Your task to perform on an android device: Search for sushi restaurants on Maps Image 0: 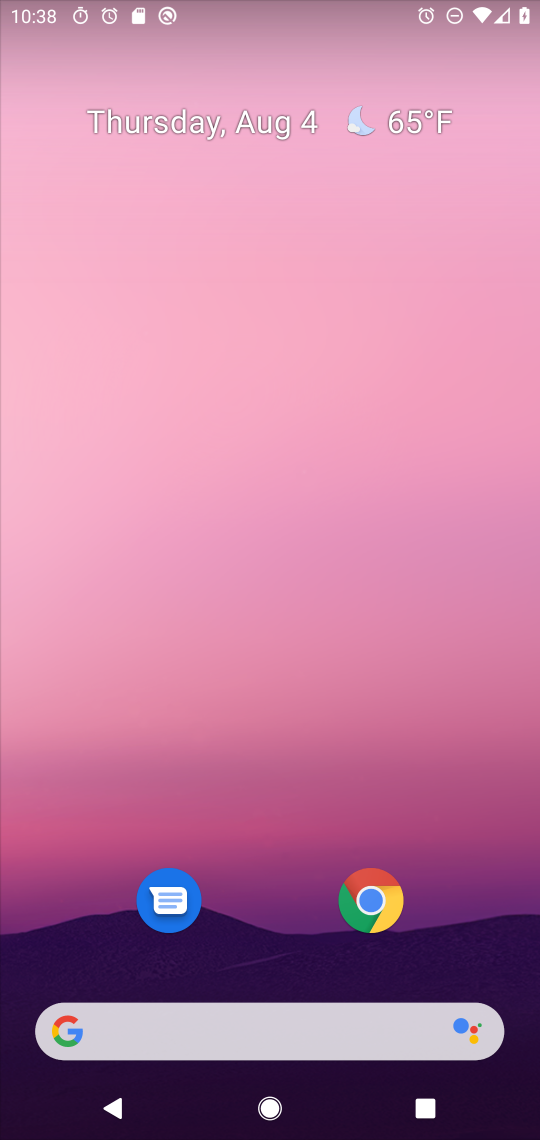
Step 0: drag from (207, 1032) to (209, 184)
Your task to perform on an android device: Search for sushi restaurants on Maps Image 1: 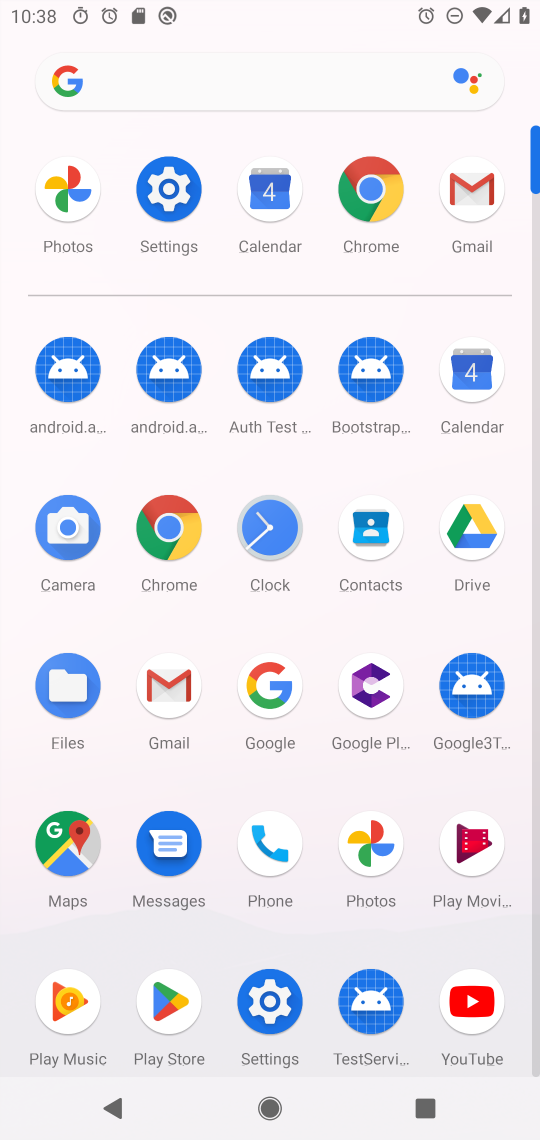
Step 1: click (63, 848)
Your task to perform on an android device: Search for sushi restaurants on Maps Image 2: 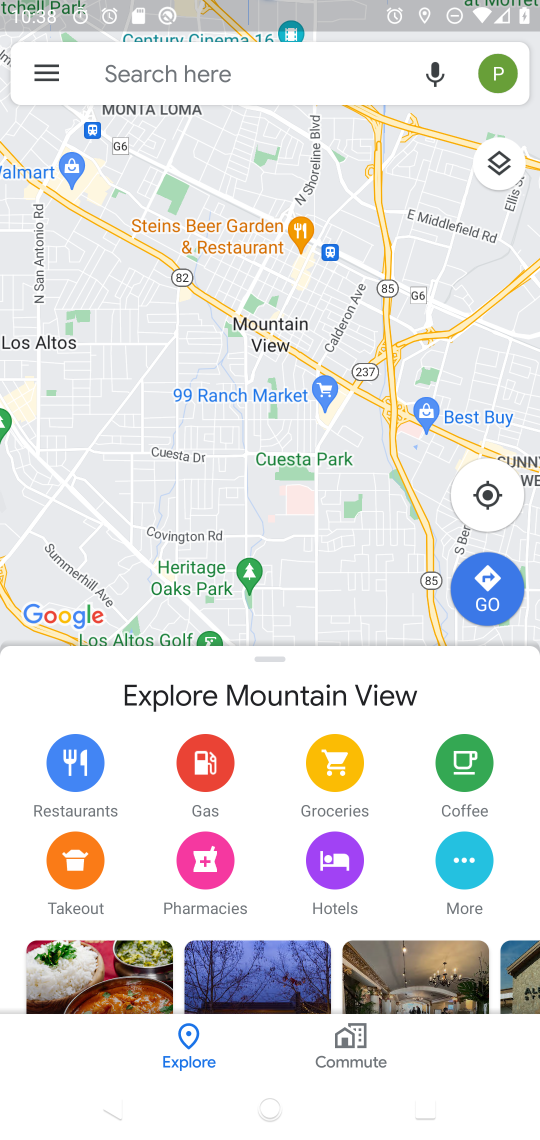
Step 2: click (287, 79)
Your task to perform on an android device: Search for sushi restaurants on Maps Image 3: 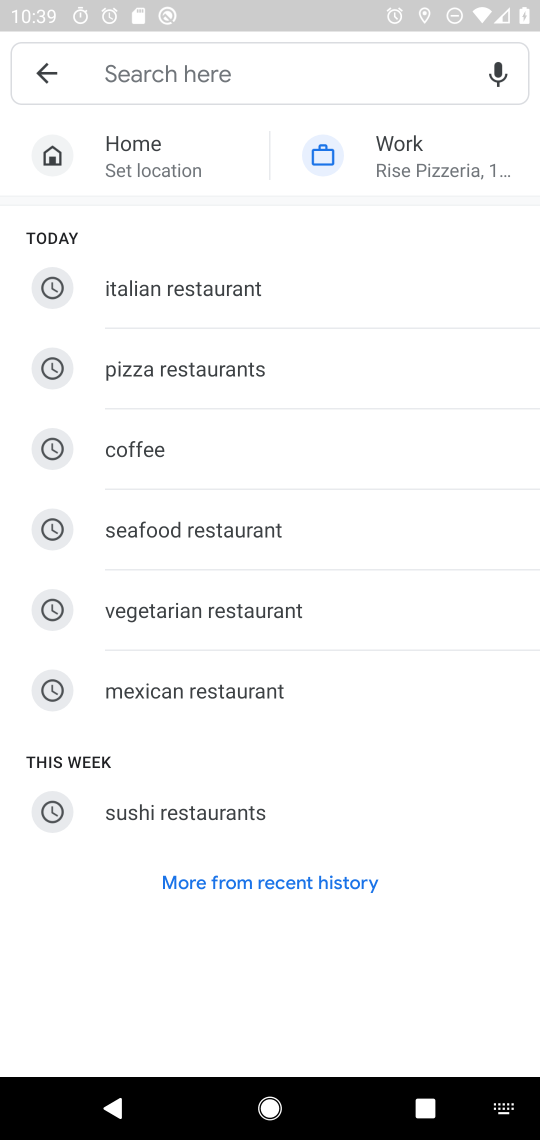
Step 3: type "sushi restaurants"
Your task to perform on an android device: Search for sushi restaurants on Maps Image 4: 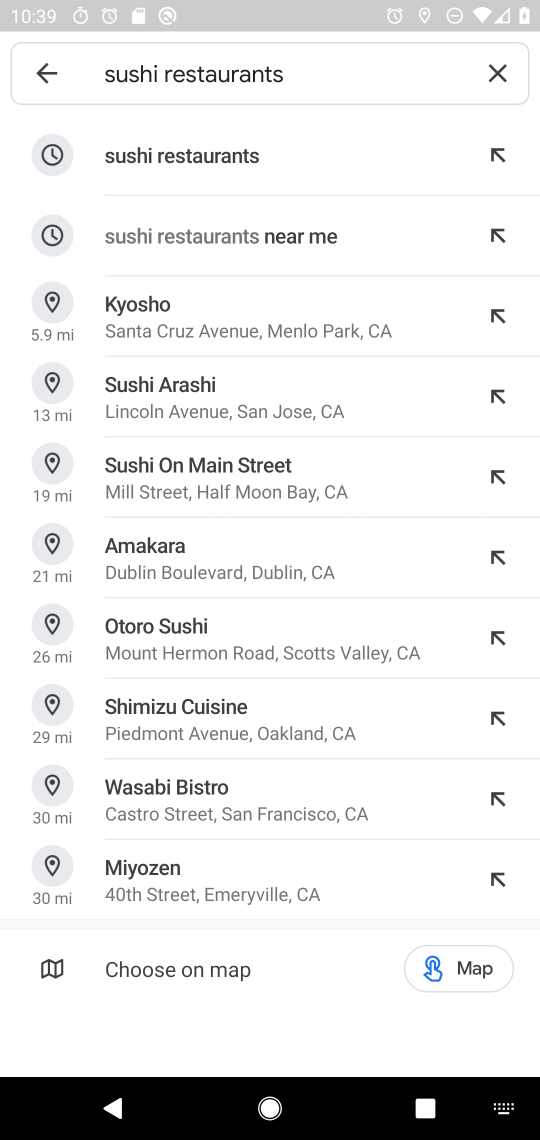
Step 4: click (202, 162)
Your task to perform on an android device: Search for sushi restaurants on Maps Image 5: 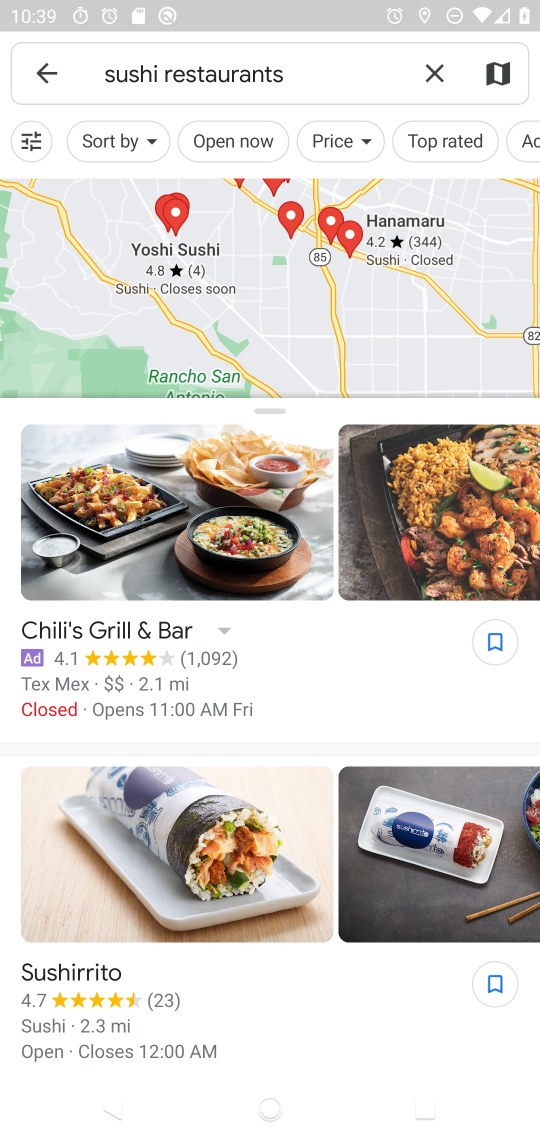
Step 5: task complete